Your task to perform on an android device: Open calendar and show me the fourth week of next month Image 0: 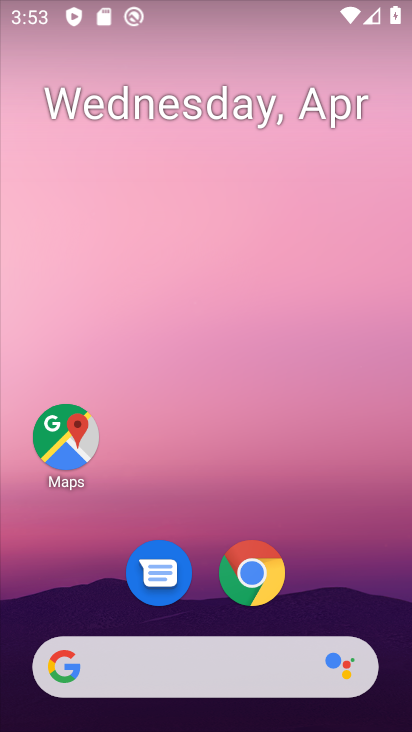
Step 0: drag from (327, 286) to (291, 60)
Your task to perform on an android device: Open calendar and show me the fourth week of next month Image 1: 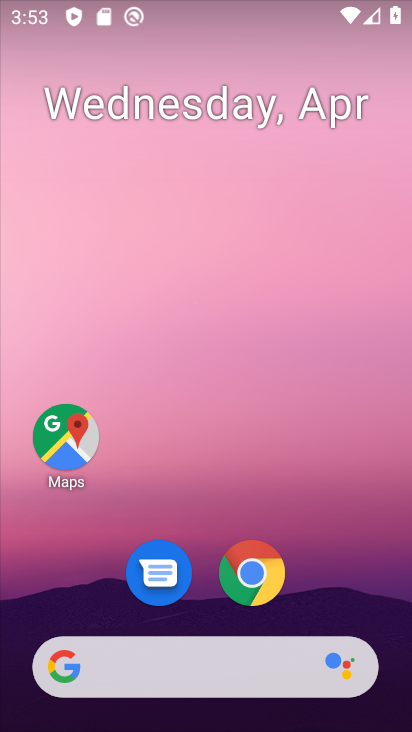
Step 1: drag from (365, 617) to (295, 126)
Your task to perform on an android device: Open calendar and show me the fourth week of next month Image 2: 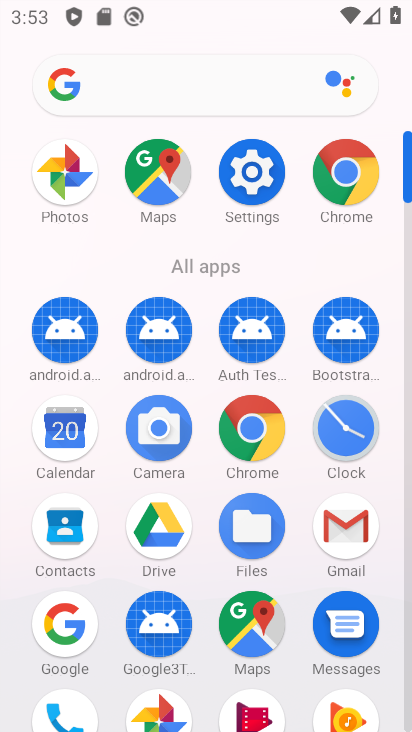
Step 2: click (61, 432)
Your task to perform on an android device: Open calendar and show me the fourth week of next month Image 3: 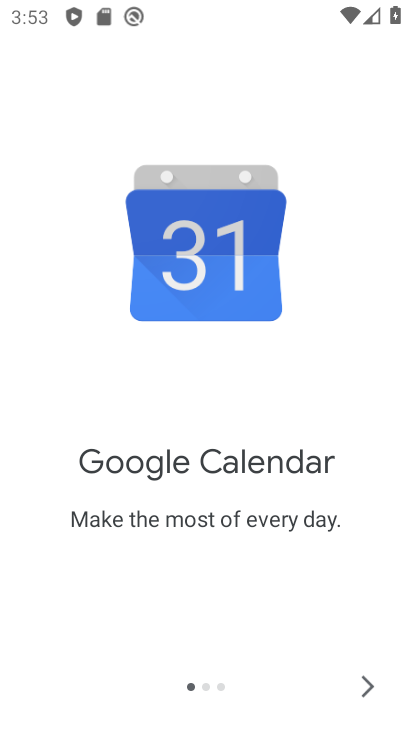
Step 3: click (369, 683)
Your task to perform on an android device: Open calendar and show me the fourth week of next month Image 4: 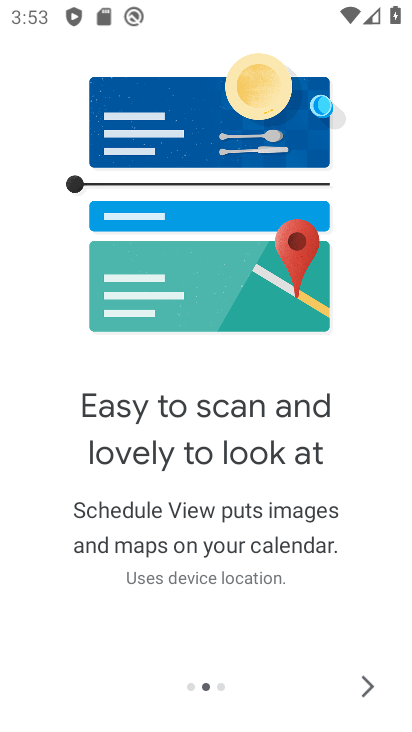
Step 4: click (369, 683)
Your task to perform on an android device: Open calendar and show me the fourth week of next month Image 5: 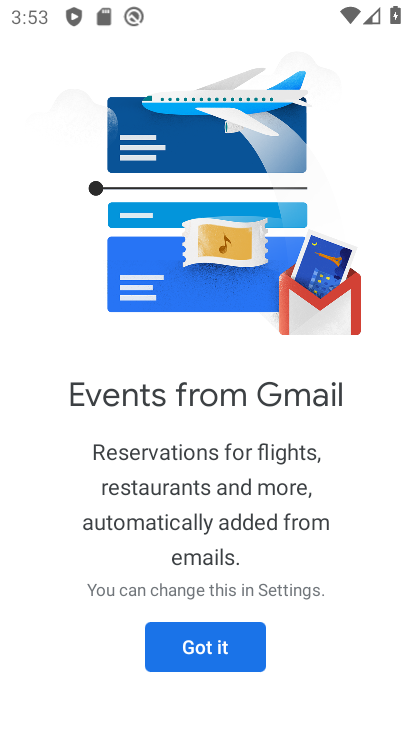
Step 5: click (369, 683)
Your task to perform on an android device: Open calendar and show me the fourth week of next month Image 6: 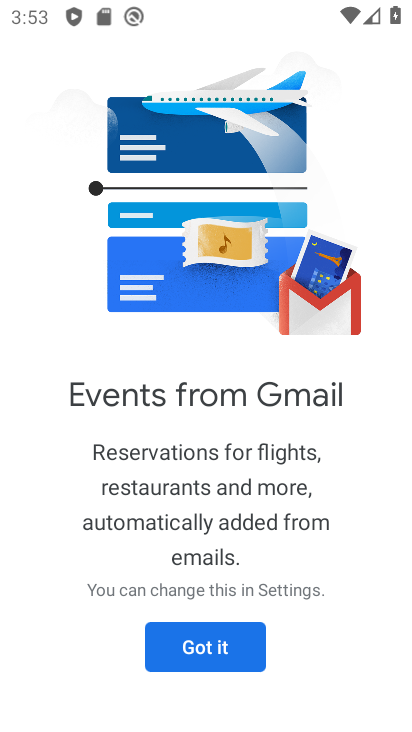
Step 6: click (232, 647)
Your task to perform on an android device: Open calendar and show me the fourth week of next month Image 7: 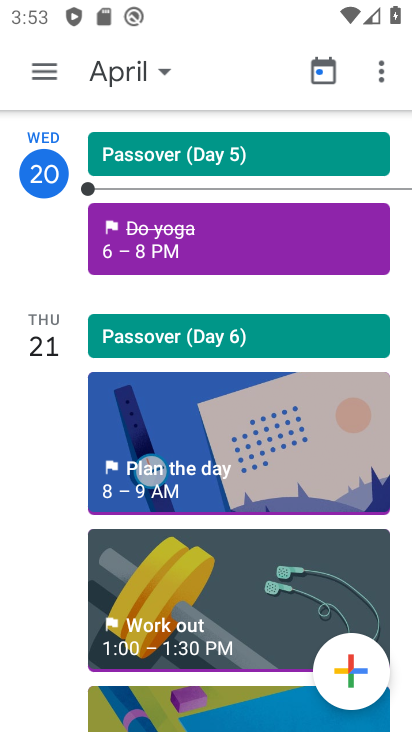
Step 7: click (164, 76)
Your task to perform on an android device: Open calendar and show me the fourth week of next month Image 8: 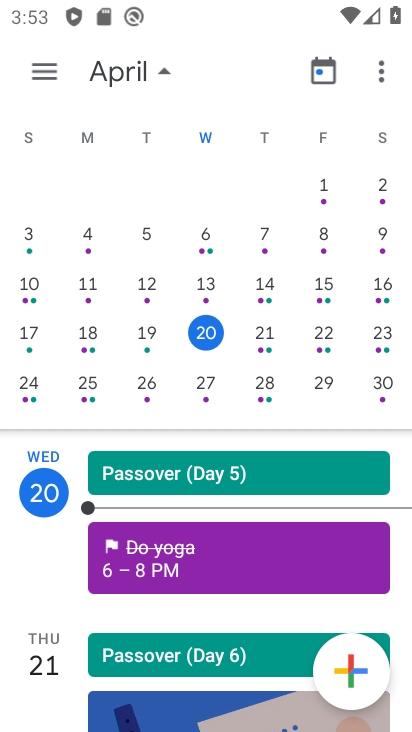
Step 8: drag from (375, 254) to (204, 278)
Your task to perform on an android device: Open calendar and show me the fourth week of next month Image 9: 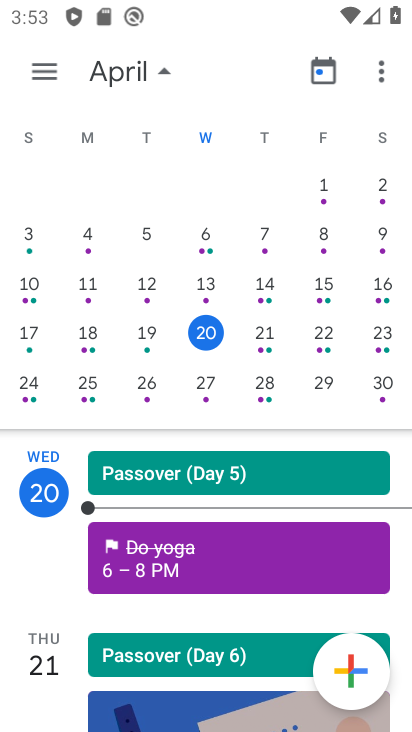
Step 9: drag from (368, 257) to (126, 253)
Your task to perform on an android device: Open calendar and show me the fourth week of next month Image 10: 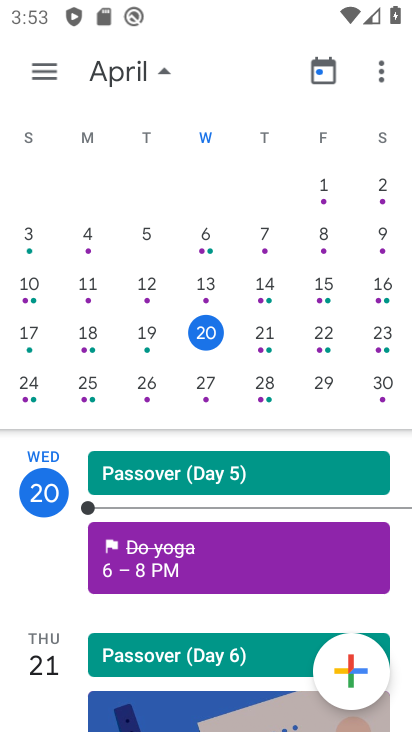
Step 10: drag from (390, 251) to (43, 258)
Your task to perform on an android device: Open calendar and show me the fourth week of next month Image 11: 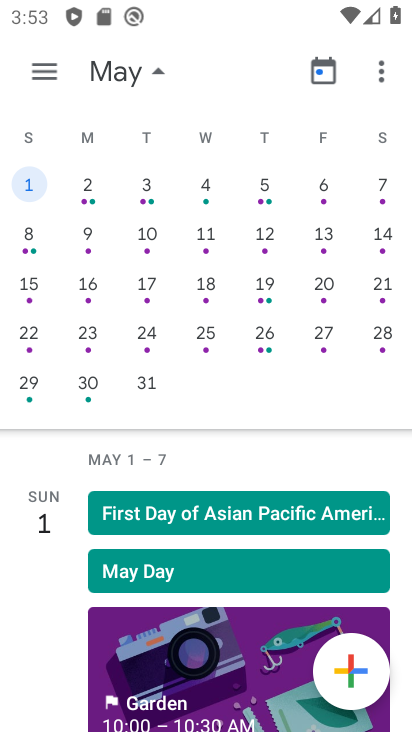
Step 11: click (206, 330)
Your task to perform on an android device: Open calendar and show me the fourth week of next month Image 12: 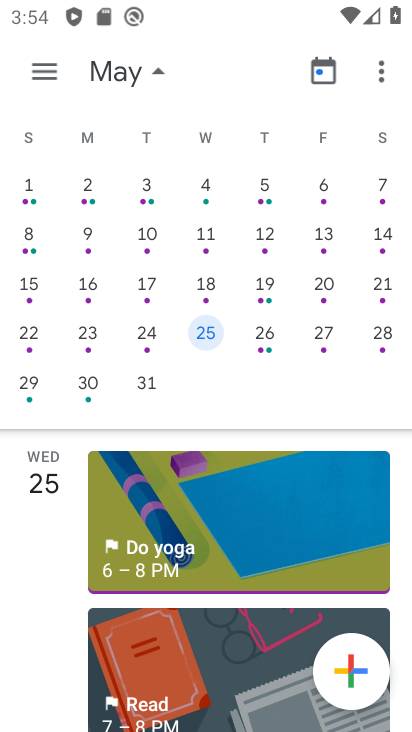
Step 12: task complete